Your task to perform on an android device: create a new album in the google photos Image 0: 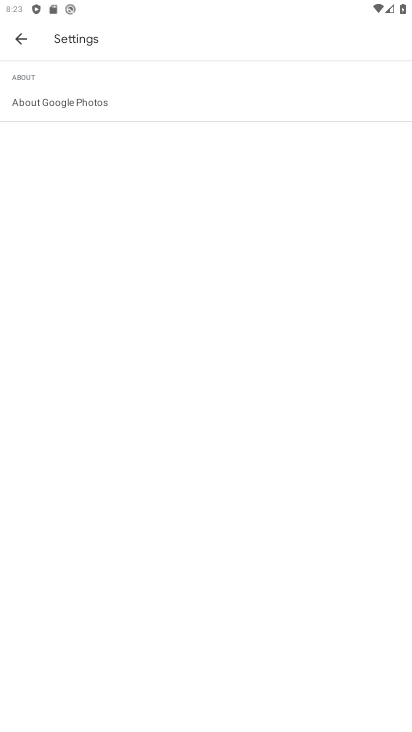
Step 0: press home button
Your task to perform on an android device: create a new album in the google photos Image 1: 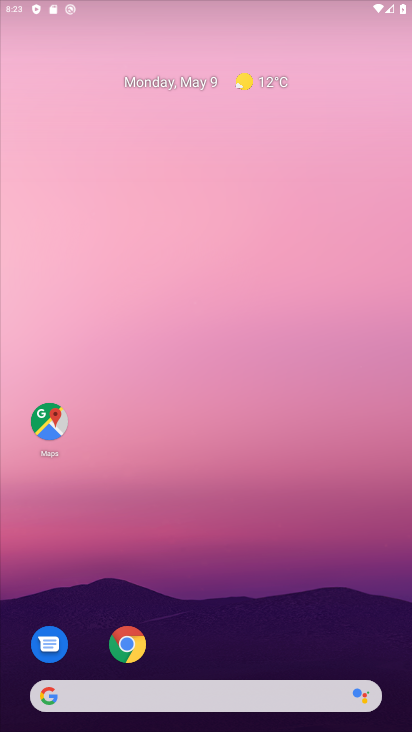
Step 1: press home button
Your task to perform on an android device: create a new album in the google photos Image 2: 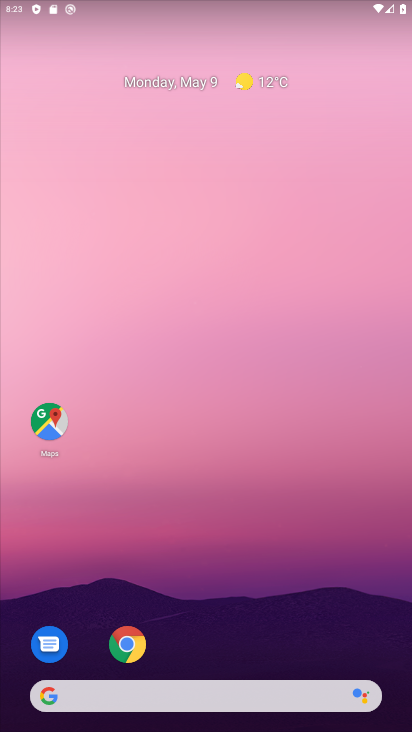
Step 2: drag from (186, 621) to (176, 147)
Your task to perform on an android device: create a new album in the google photos Image 3: 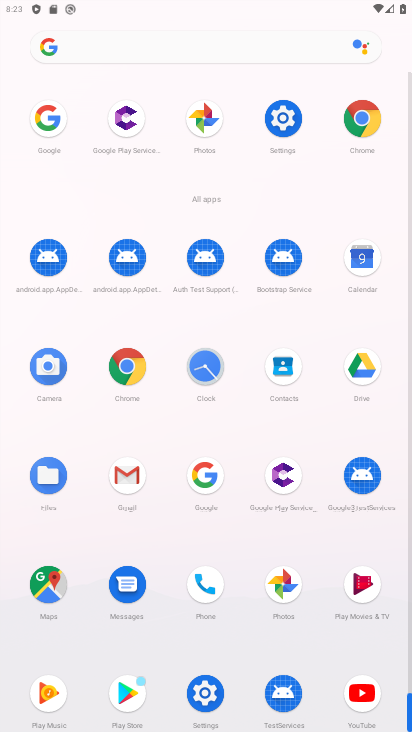
Step 3: click (205, 146)
Your task to perform on an android device: create a new album in the google photos Image 4: 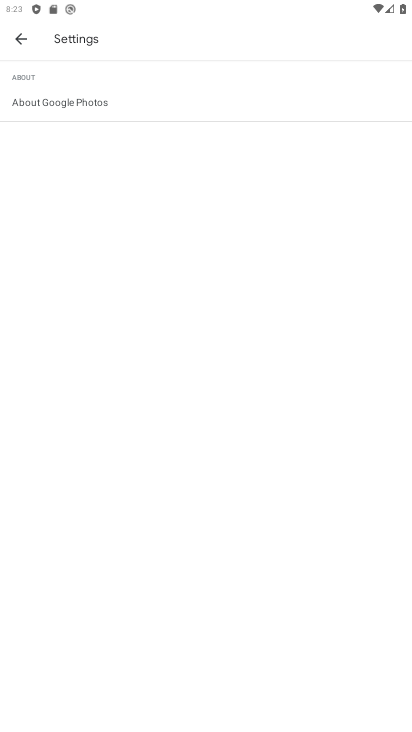
Step 4: click (18, 43)
Your task to perform on an android device: create a new album in the google photos Image 5: 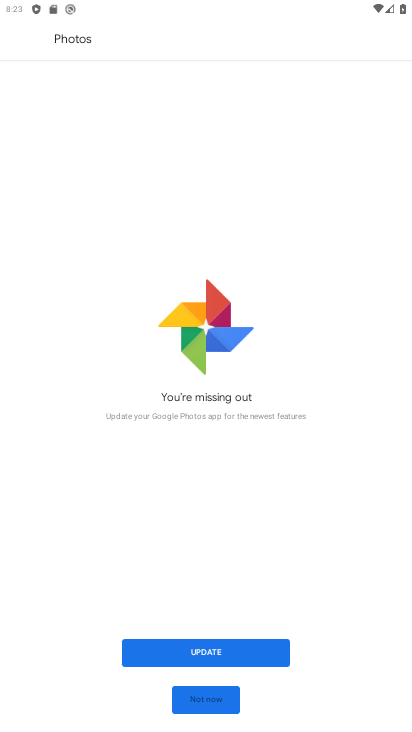
Step 5: click (205, 706)
Your task to perform on an android device: create a new album in the google photos Image 6: 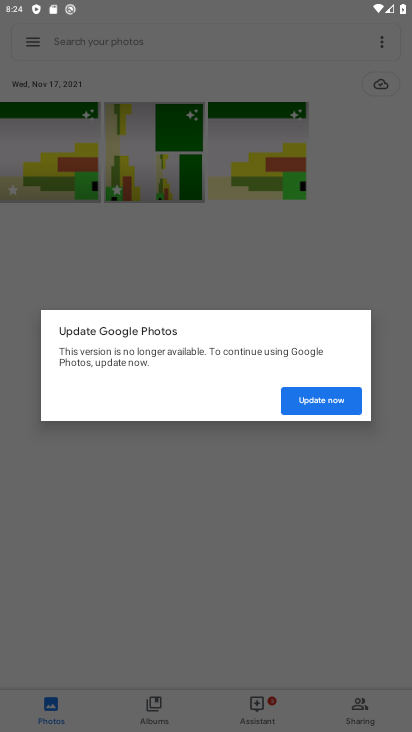
Step 6: click (327, 404)
Your task to perform on an android device: create a new album in the google photos Image 7: 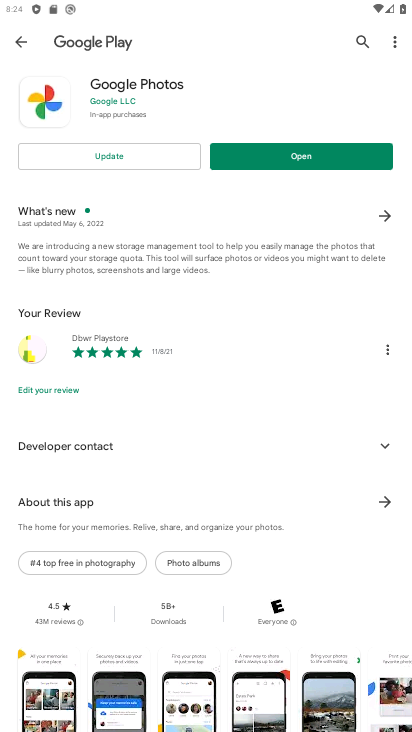
Step 7: click (262, 161)
Your task to perform on an android device: create a new album in the google photos Image 8: 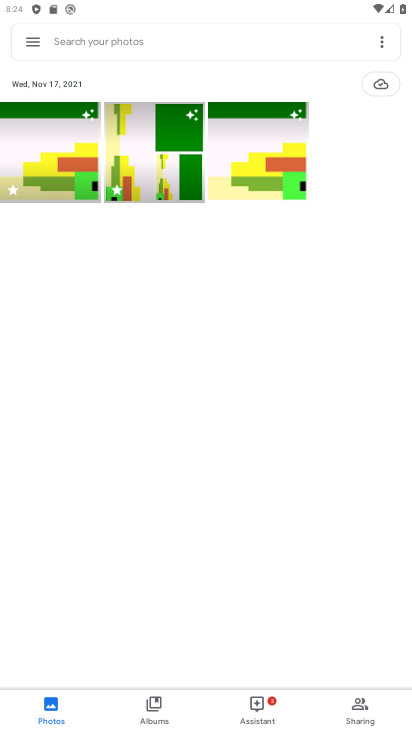
Step 8: click (158, 719)
Your task to perform on an android device: create a new album in the google photos Image 9: 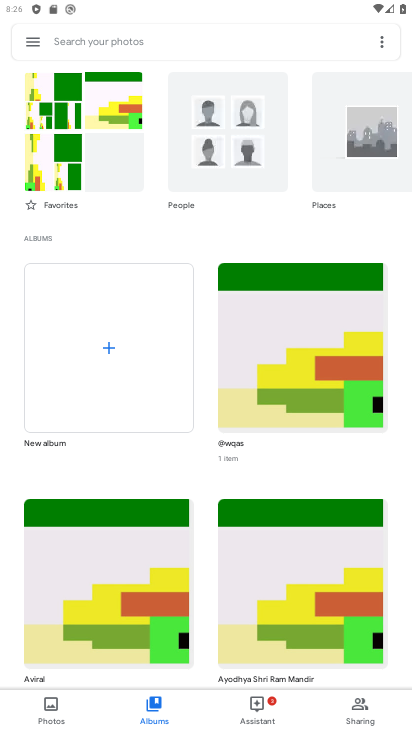
Step 9: click (99, 337)
Your task to perform on an android device: create a new album in the google photos Image 10: 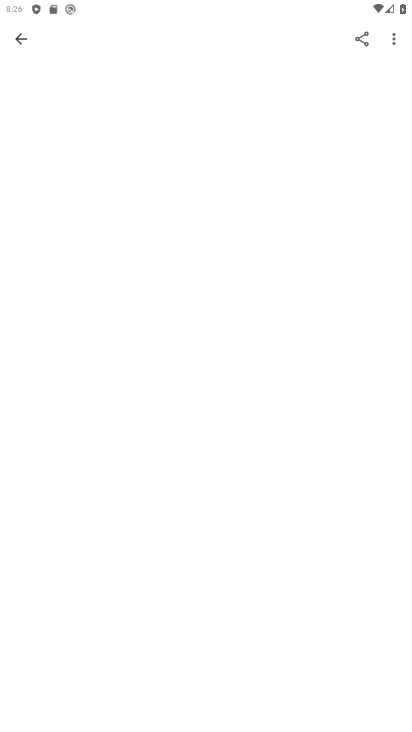
Step 10: click (110, 342)
Your task to perform on an android device: create a new album in the google photos Image 11: 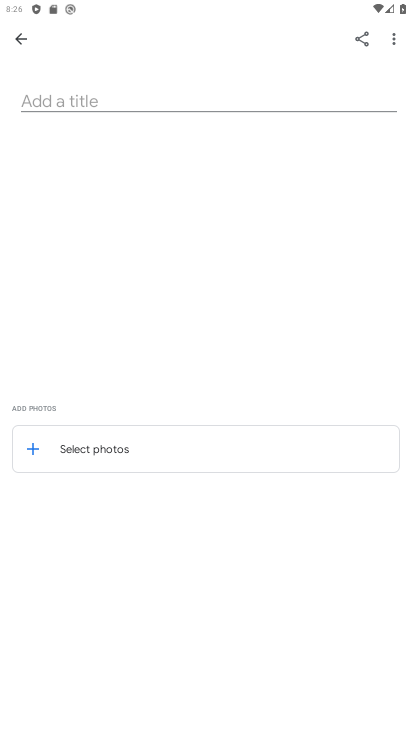
Step 11: click (183, 105)
Your task to perform on an android device: create a new album in the google photos Image 12: 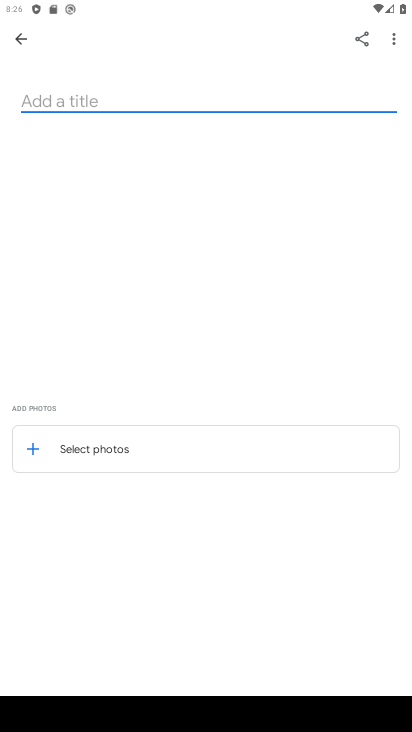
Step 12: type "chinna"
Your task to perform on an android device: create a new album in the google photos Image 13: 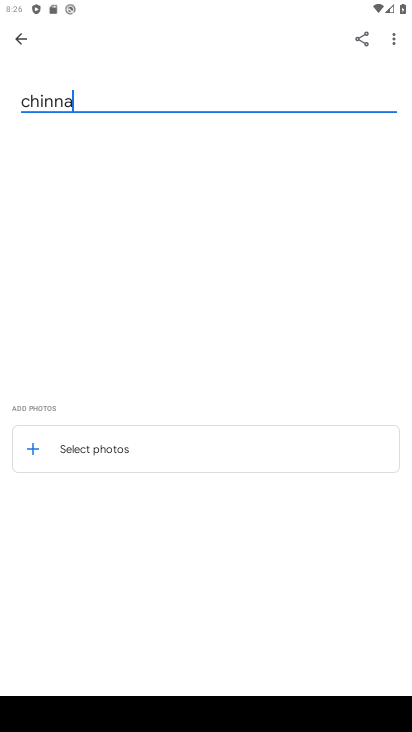
Step 13: click (227, 433)
Your task to perform on an android device: create a new album in the google photos Image 14: 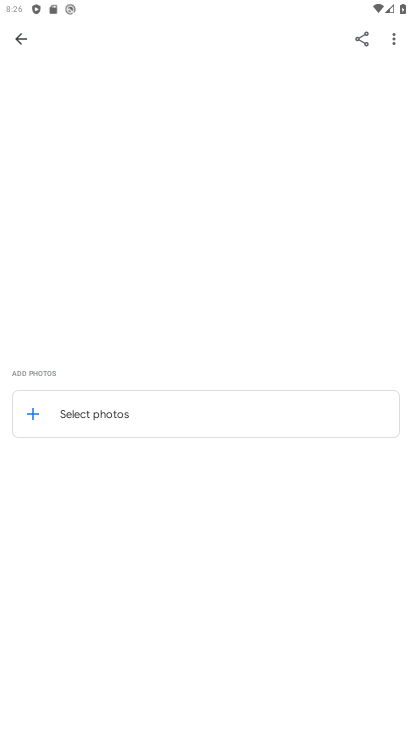
Step 14: click (92, 409)
Your task to perform on an android device: create a new album in the google photos Image 15: 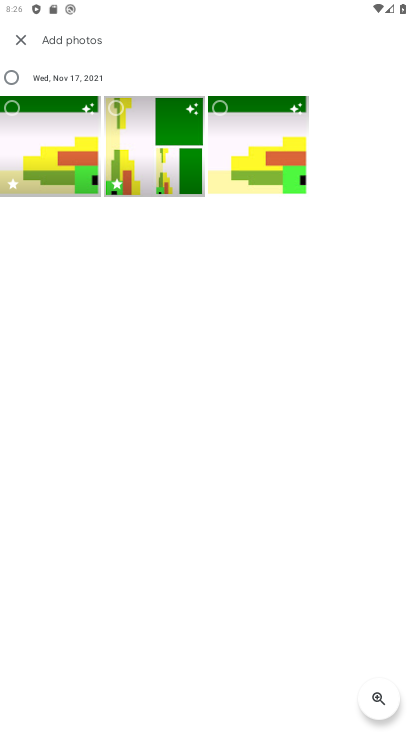
Step 15: click (15, 79)
Your task to perform on an android device: create a new album in the google photos Image 16: 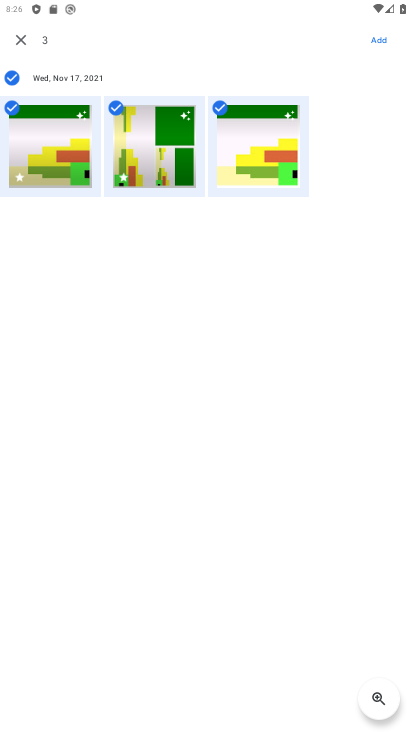
Step 16: click (15, 79)
Your task to perform on an android device: create a new album in the google photos Image 17: 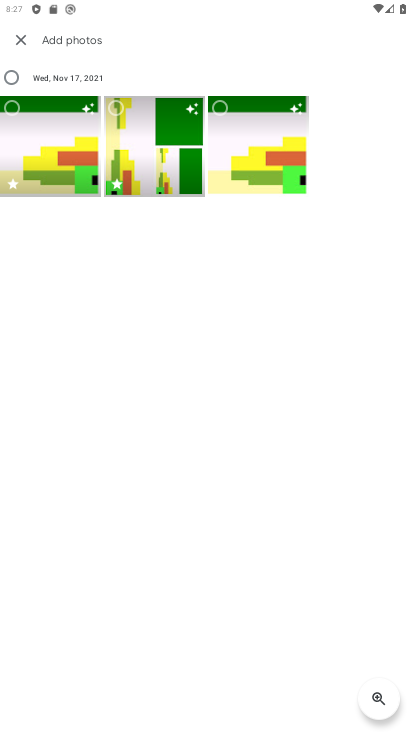
Step 17: click (15, 79)
Your task to perform on an android device: create a new album in the google photos Image 18: 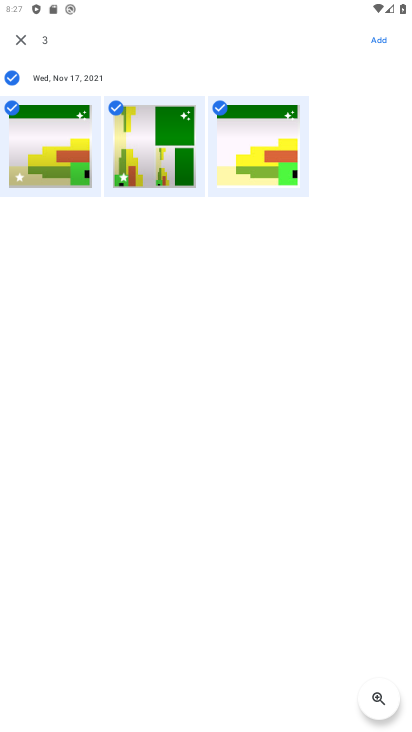
Step 18: click (377, 39)
Your task to perform on an android device: create a new album in the google photos Image 19: 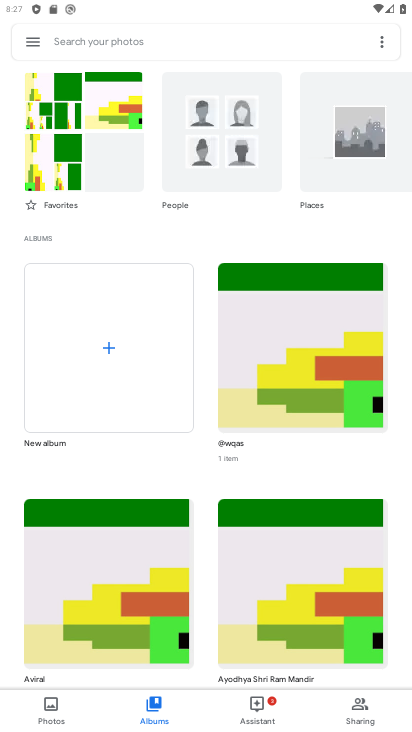
Step 19: task complete